Your task to perform on an android device: change text size in settings app Image 0: 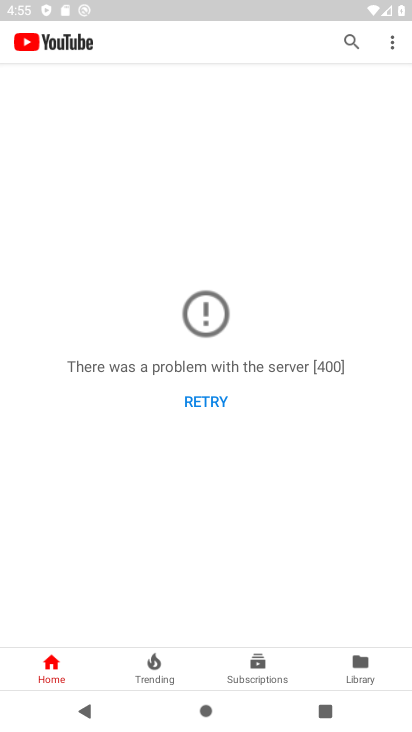
Step 0: press home button
Your task to perform on an android device: change text size in settings app Image 1: 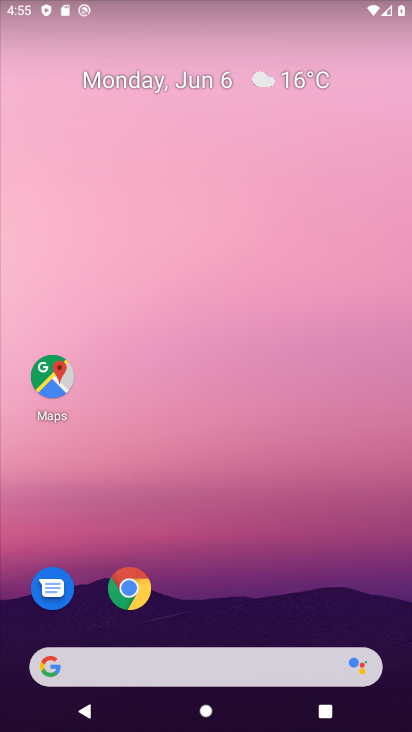
Step 1: drag from (220, 619) to (197, 207)
Your task to perform on an android device: change text size in settings app Image 2: 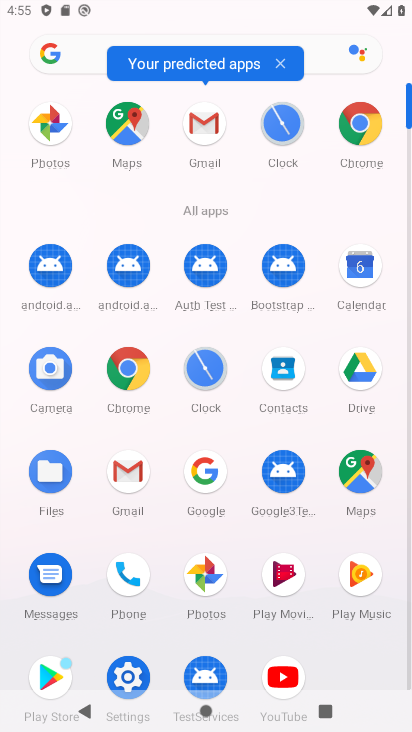
Step 2: click (124, 673)
Your task to perform on an android device: change text size in settings app Image 3: 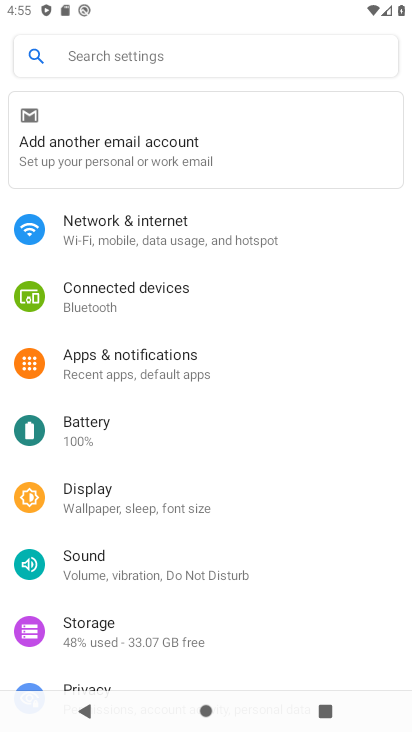
Step 3: drag from (198, 613) to (192, 436)
Your task to perform on an android device: change text size in settings app Image 4: 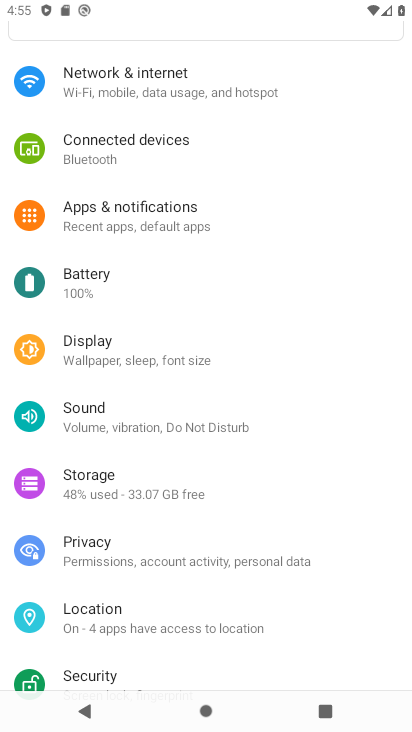
Step 4: click (179, 352)
Your task to perform on an android device: change text size in settings app Image 5: 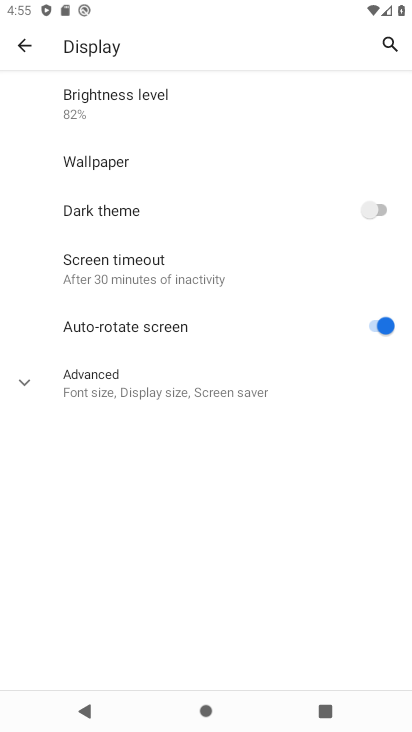
Step 5: click (181, 381)
Your task to perform on an android device: change text size in settings app Image 6: 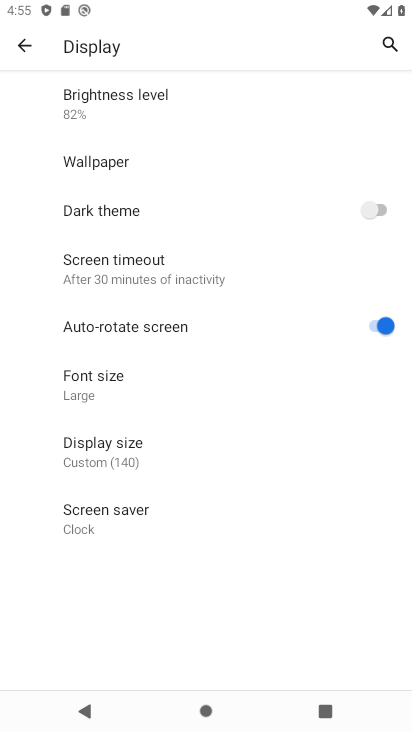
Step 6: click (181, 381)
Your task to perform on an android device: change text size in settings app Image 7: 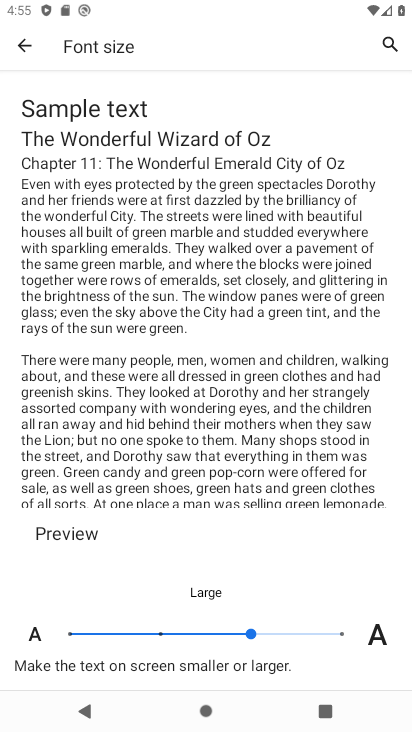
Step 7: click (158, 636)
Your task to perform on an android device: change text size in settings app Image 8: 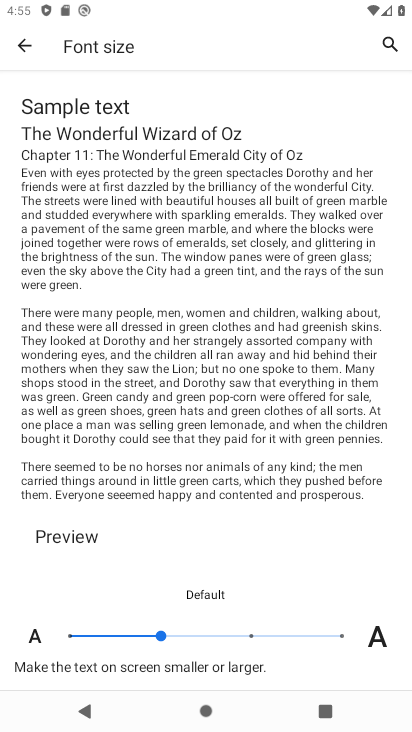
Step 8: task complete